Your task to perform on an android device: toggle translation in the chrome app Image 0: 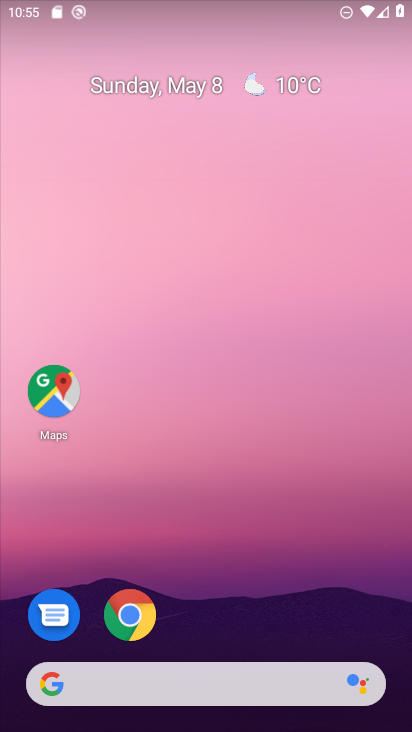
Step 0: drag from (266, 587) to (189, 70)
Your task to perform on an android device: toggle translation in the chrome app Image 1: 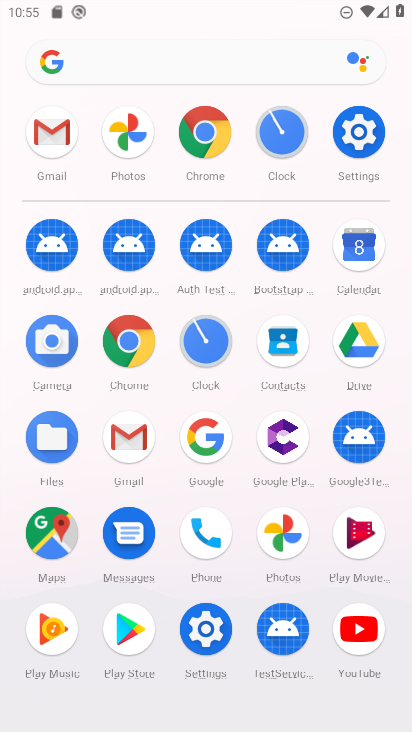
Step 1: click (124, 333)
Your task to perform on an android device: toggle translation in the chrome app Image 2: 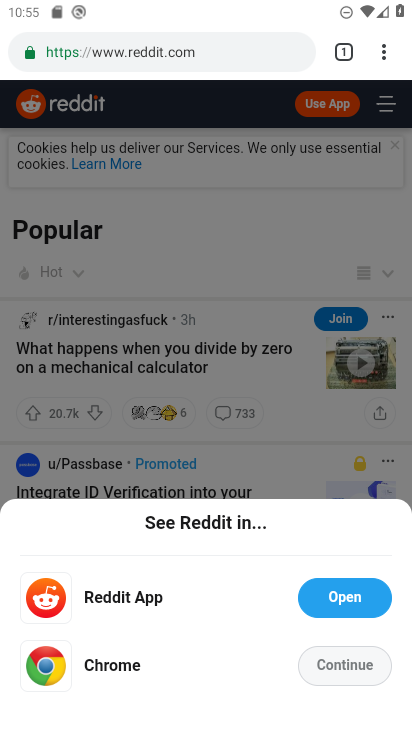
Step 2: drag from (387, 50) to (205, 635)
Your task to perform on an android device: toggle translation in the chrome app Image 3: 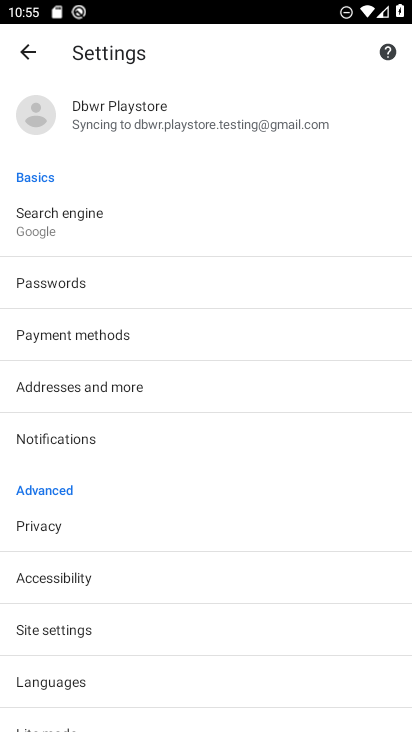
Step 3: click (98, 678)
Your task to perform on an android device: toggle translation in the chrome app Image 4: 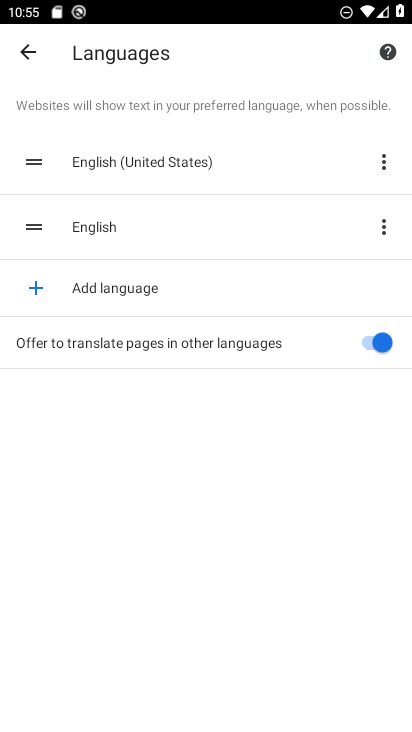
Step 4: click (382, 337)
Your task to perform on an android device: toggle translation in the chrome app Image 5: 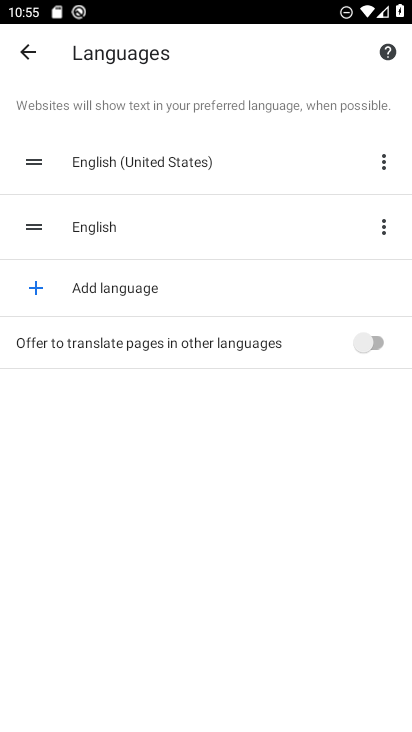
Step 5: task complete